Your task to perform on an android device: create a new album in the google photos Image 0: 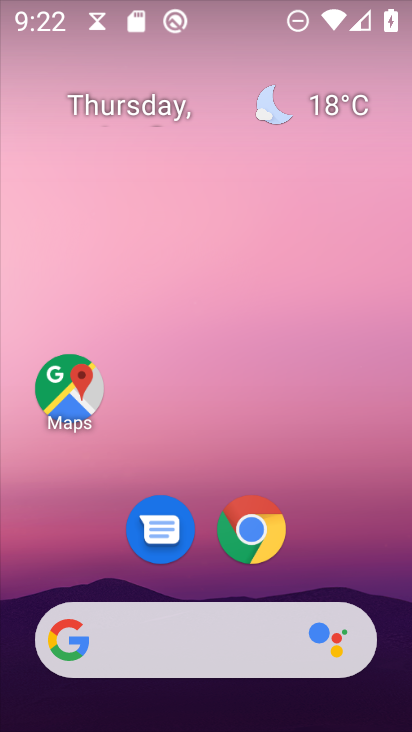
Step 0: drag from (402, 716) to (328, 60)
Your task to perform on an android device: create a new album in the google photos Image 1: 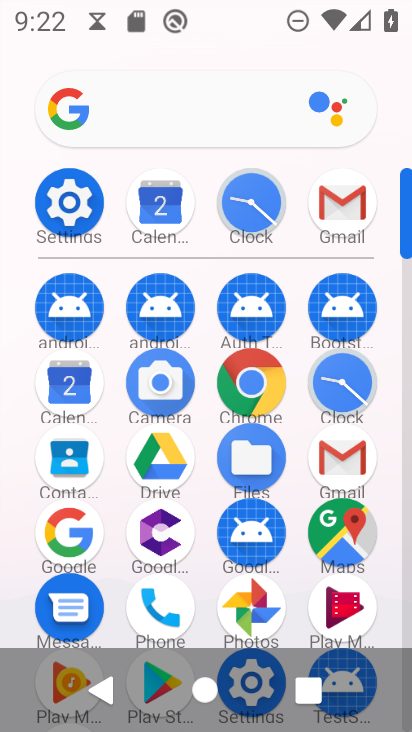
Step 1: click (245, 591)
Your task to perform on an android device: create a new album in the google photos Image 2: 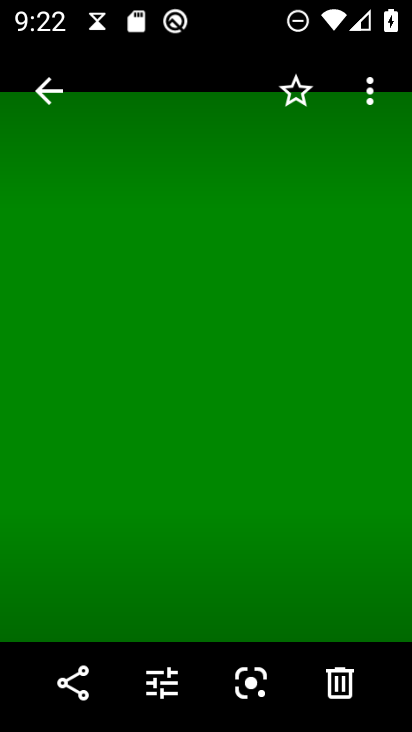
Step 2: click (35, 101)
Your task to perform on an android device: create a new album in the google photos Image 3: 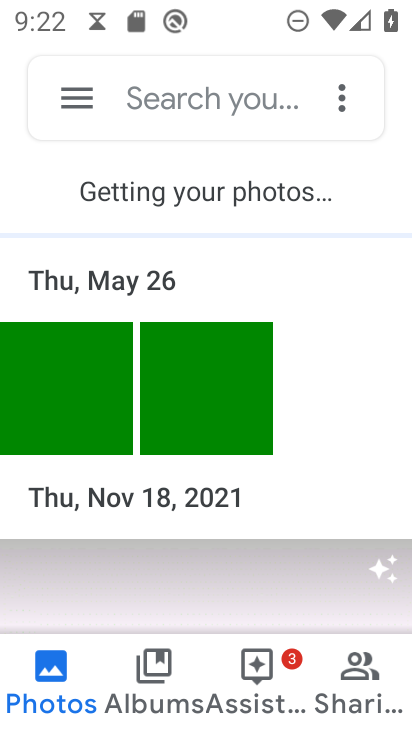
Step 3: click (343, 99)
Your task to perform on an android device: create a new album in the google photos Image 4: 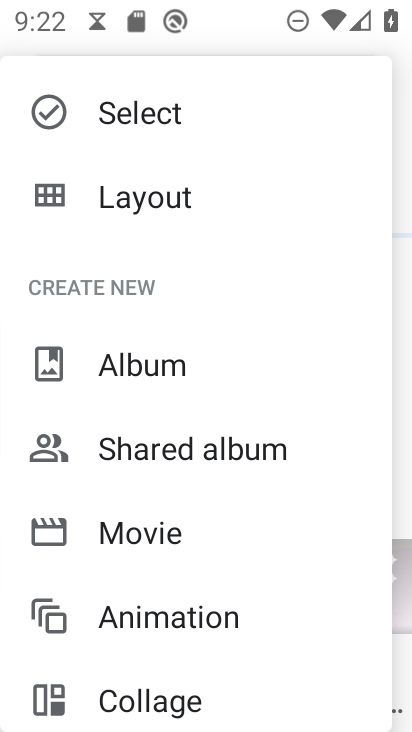
Step 4: click (123, 352)
Your task to perform on an android device: create a new album in the google photos Image 5: 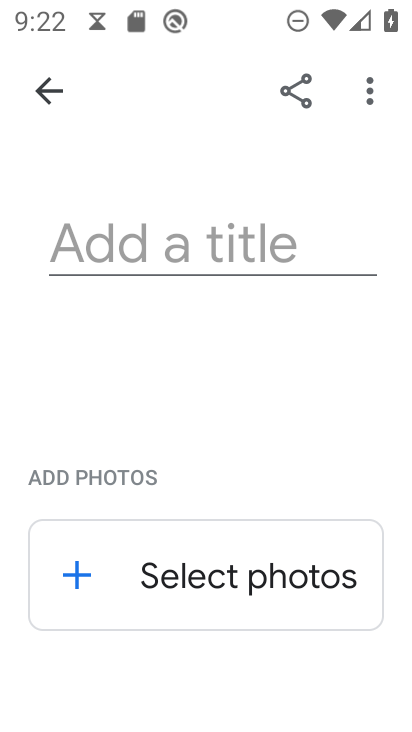
Step 5: click (213, 236)
Your task to perform on an android device: create a new album in the google photos Image 6: 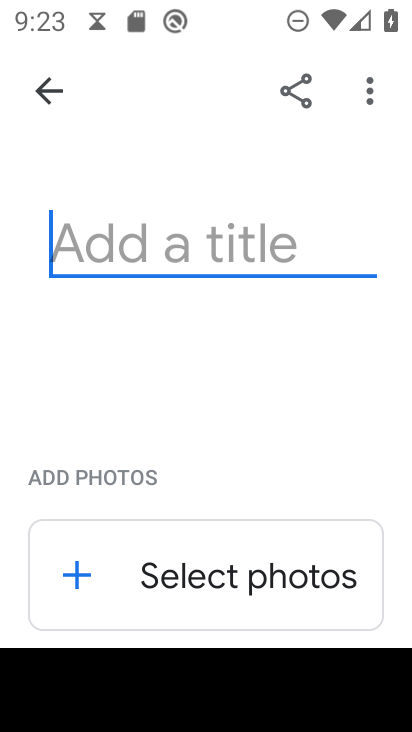
Step 6: type "sdfghj"
Your task to perform on an android device: create a new album in the google photos Image 7: 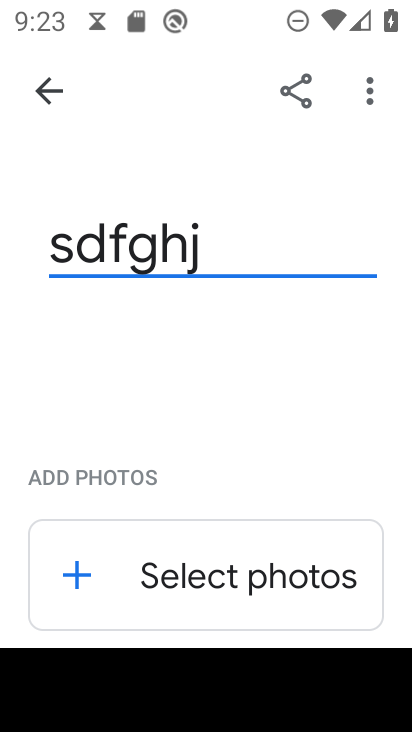
Step 7: click (182, 581)
Your task to perform on an android device: create a new album in the google photos Image 8: 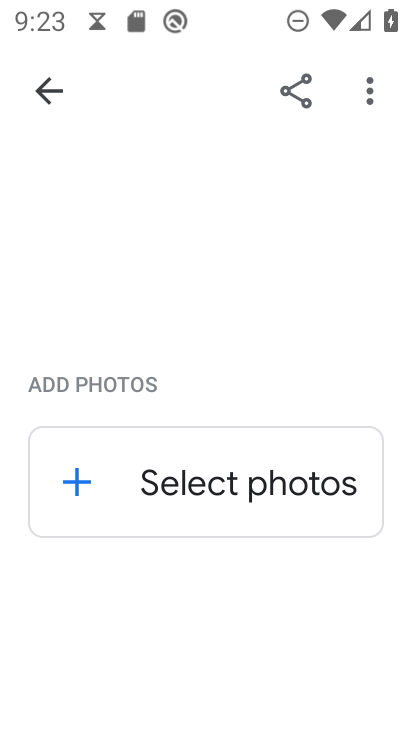
Step 8: click (178, 478)
Your task to perform on an android device: create a new album in the google photos Image 9: 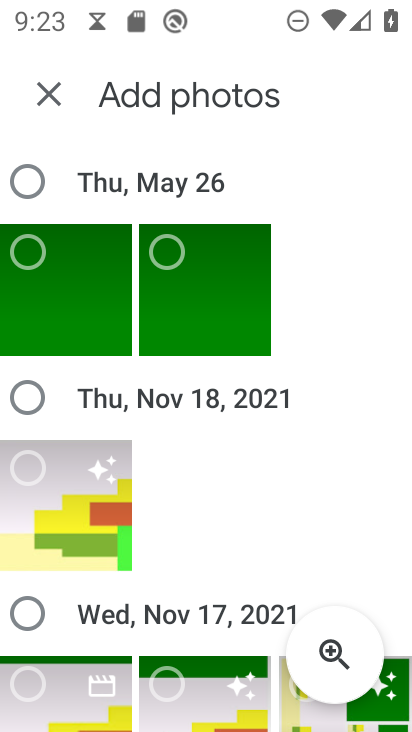
Step 9: click (173, 684)
Your task to perform on an android device: create a new album in the google photos Image 10: 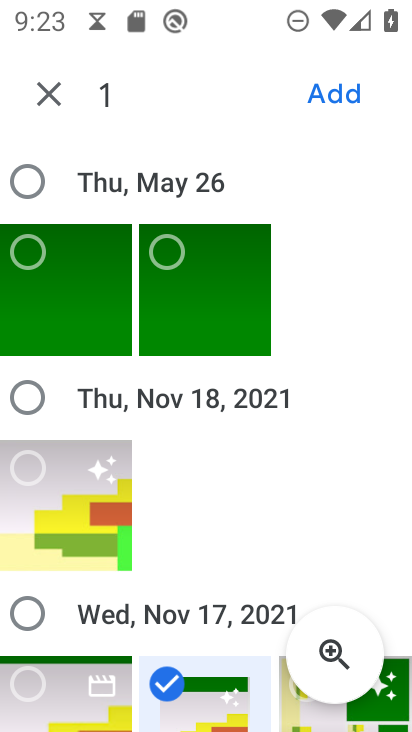
Step 10: click (32, 474)
Your task to perform on an android device: create a new album in the google photos Image 11: 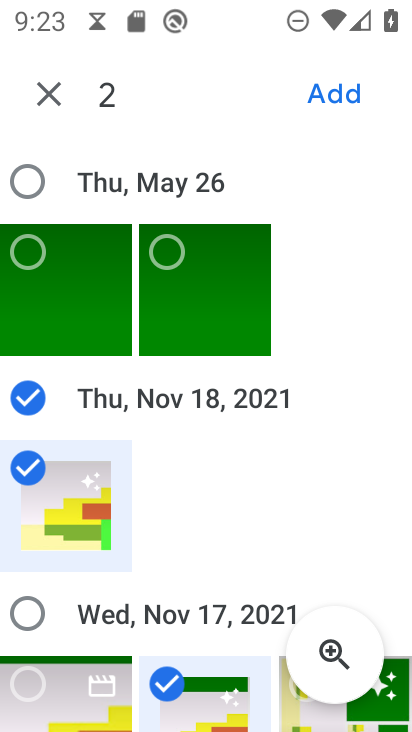
Step 11: click (181, 248)
Your task to perform on an android device: create a new album in the google photos Image 12: 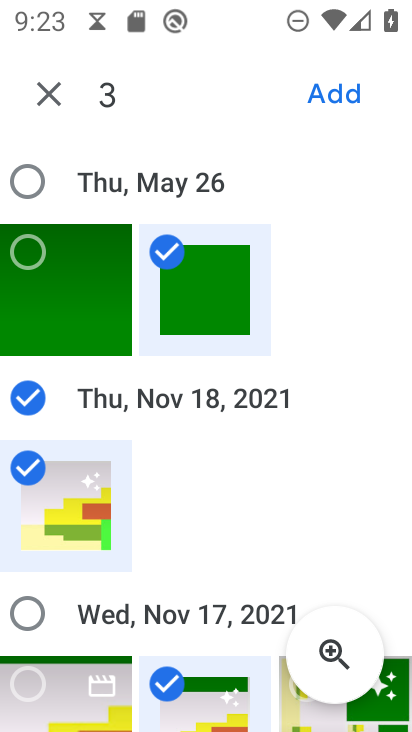
Step 12: click (356, 94)
Your task to perform on an android device: create a new album in the google photos Image 13: 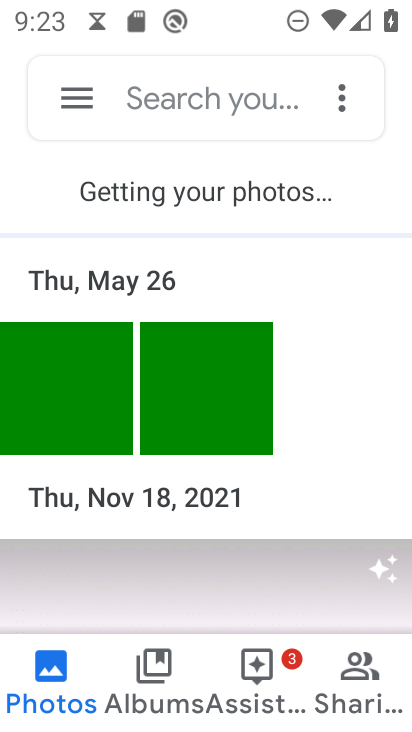
Step 13: task complete